Your task to perform on an android device: View the shopping cart on walmart. Image 0: 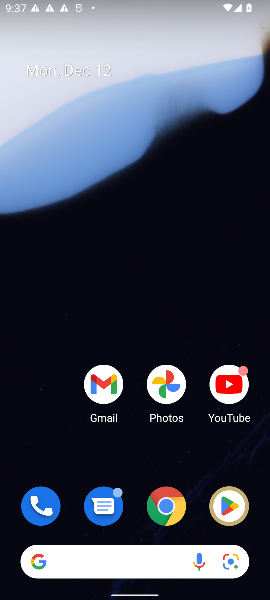
Step 0: click (140, 571)
Your task to perform on an android device: View the shopping cart on walmart. Image 1: 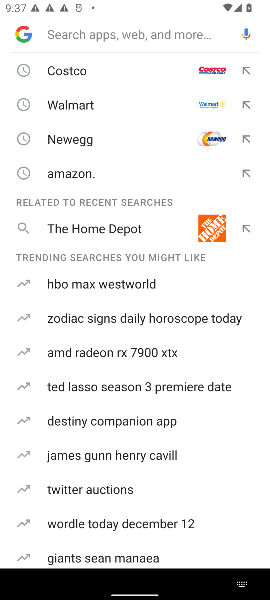
Step 1: click (103, 111)
Your task to perform on an android device: View the shopping cart on walmart. Image 2: 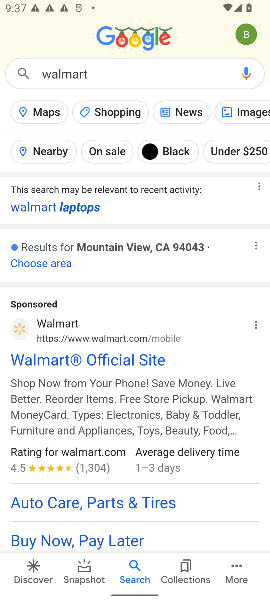
Step 2: click (113, 354)
Your task to perform on an android device: View the shopping cart on walmart. Image 3: 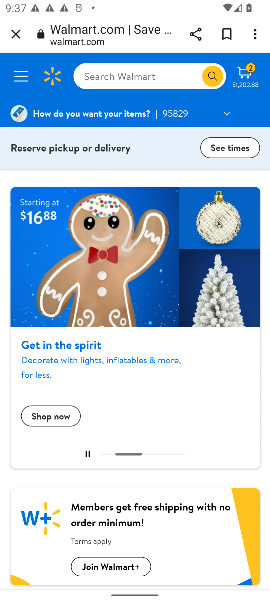
Step 3: task complete